Your task to perform on an android device: Clear the shopping cart on ebay.com. Search for "lenovo thinkpad" on ebay.com, select the first entry, and add it to the cart. Image 0: 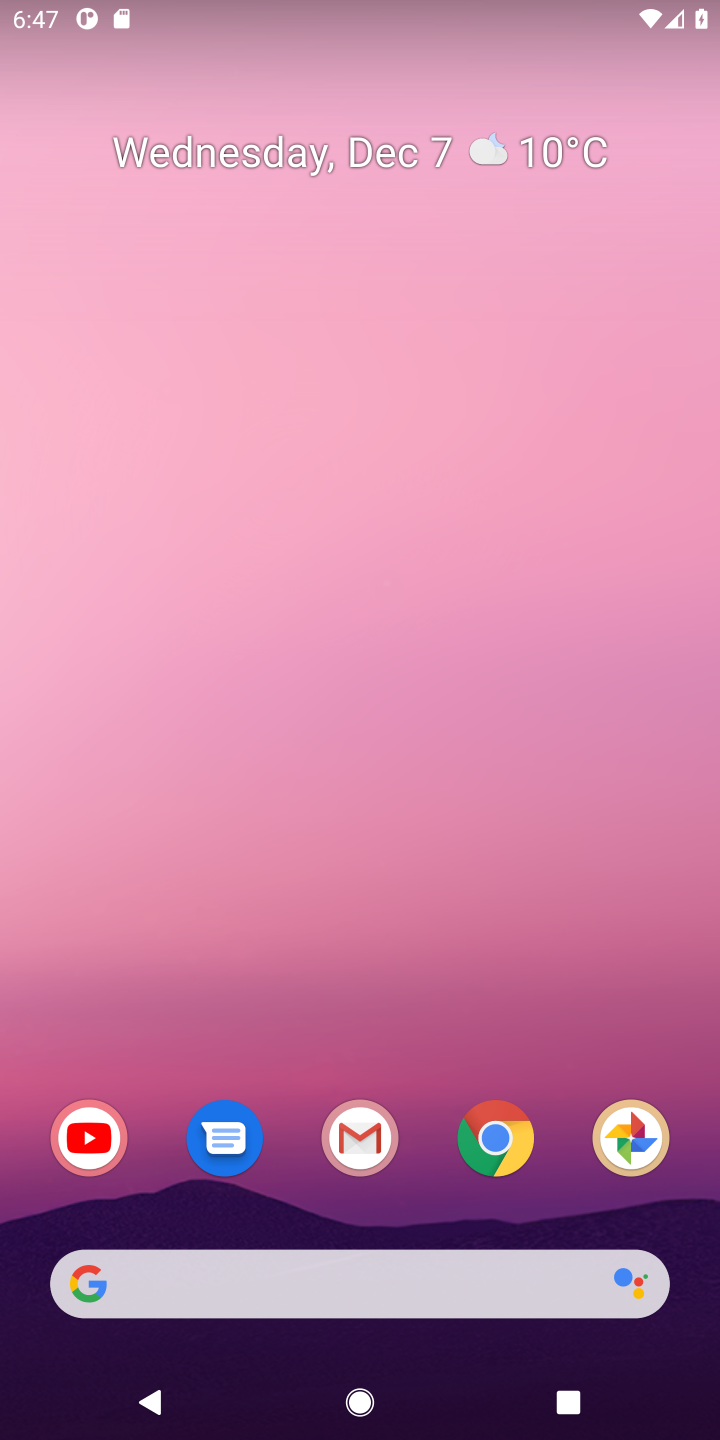
Step 0: press home button
Your task to perform on an android device: Clear the shopping cart on ebay.com. Search for "lenovo thinkpad" on ebay.com, select the first entry, and add it to the cart. Image 1: 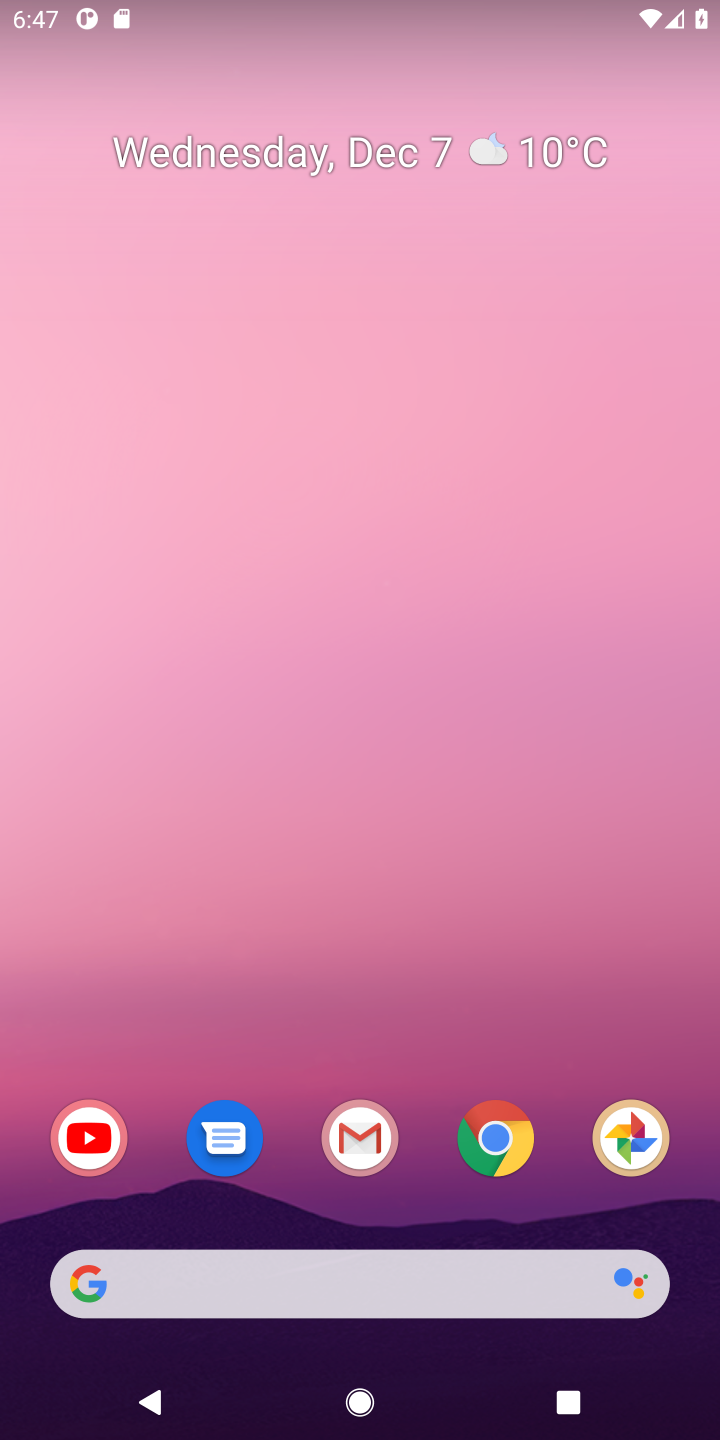
Step 1: click (149, 1283)
Your task to perform on an android device: Clear the shopping cart on ebay.com. Search for "lenovo thinkpad" on ebay.com, select the first entry, and add it to the cart. Image 2: 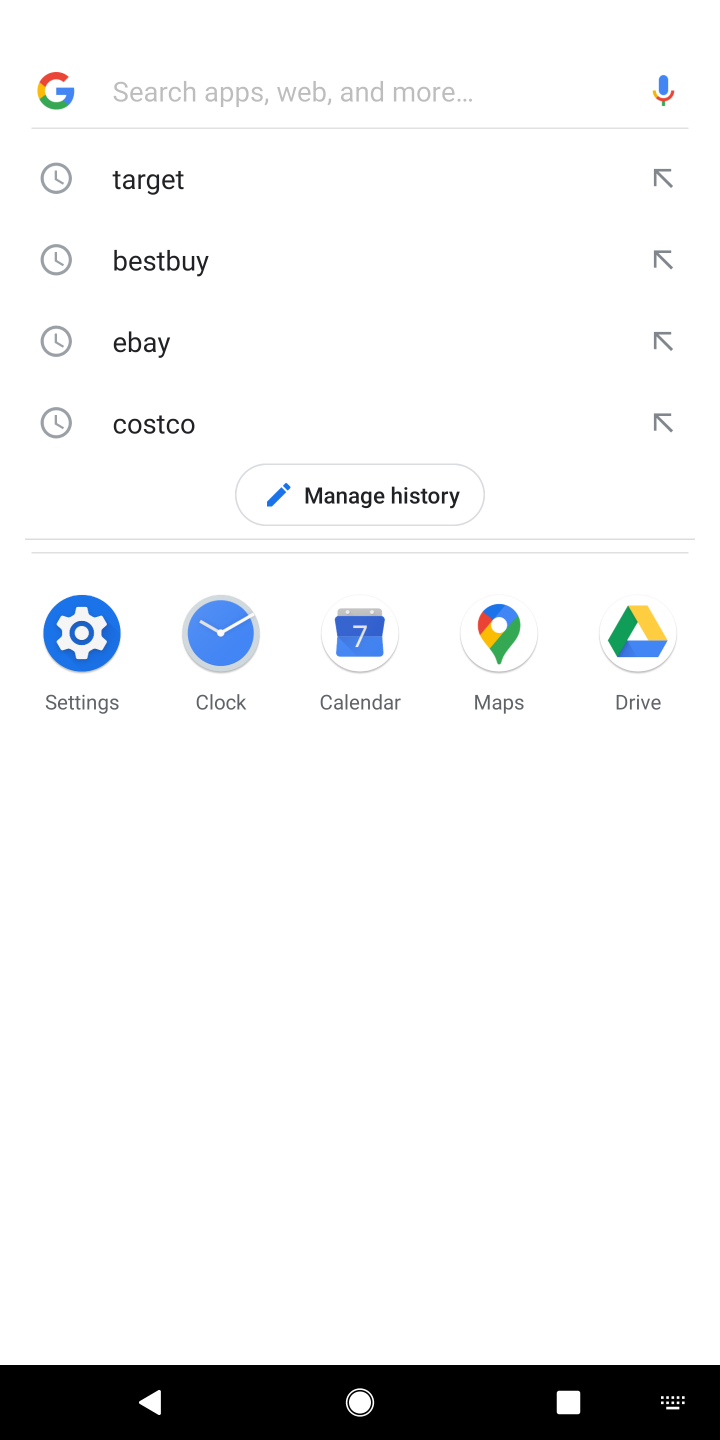
Step 2: press enter
Your task to perform on an android device: Clear the shopping cart on ebay.com. Search for "lenovo thinkpad" on ebay.com, select the first entry, and add it to the cart. Image 3: 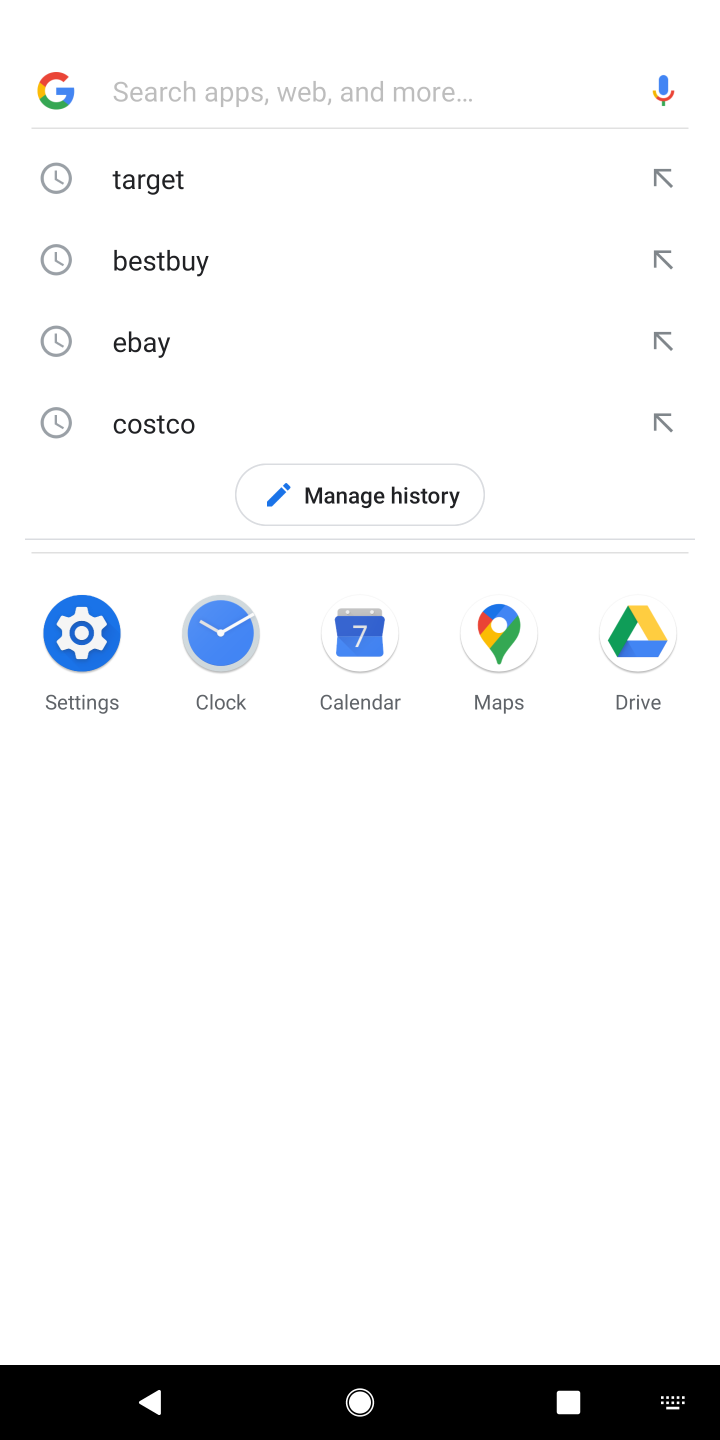
Step 3: type "ebay.com"
Your task to perform on an android device: Clear the shopping cart on ebay.com. Search for "lenovo thinkpad" on ebay.com, select the first entry, and add it to the cart. Image 4: 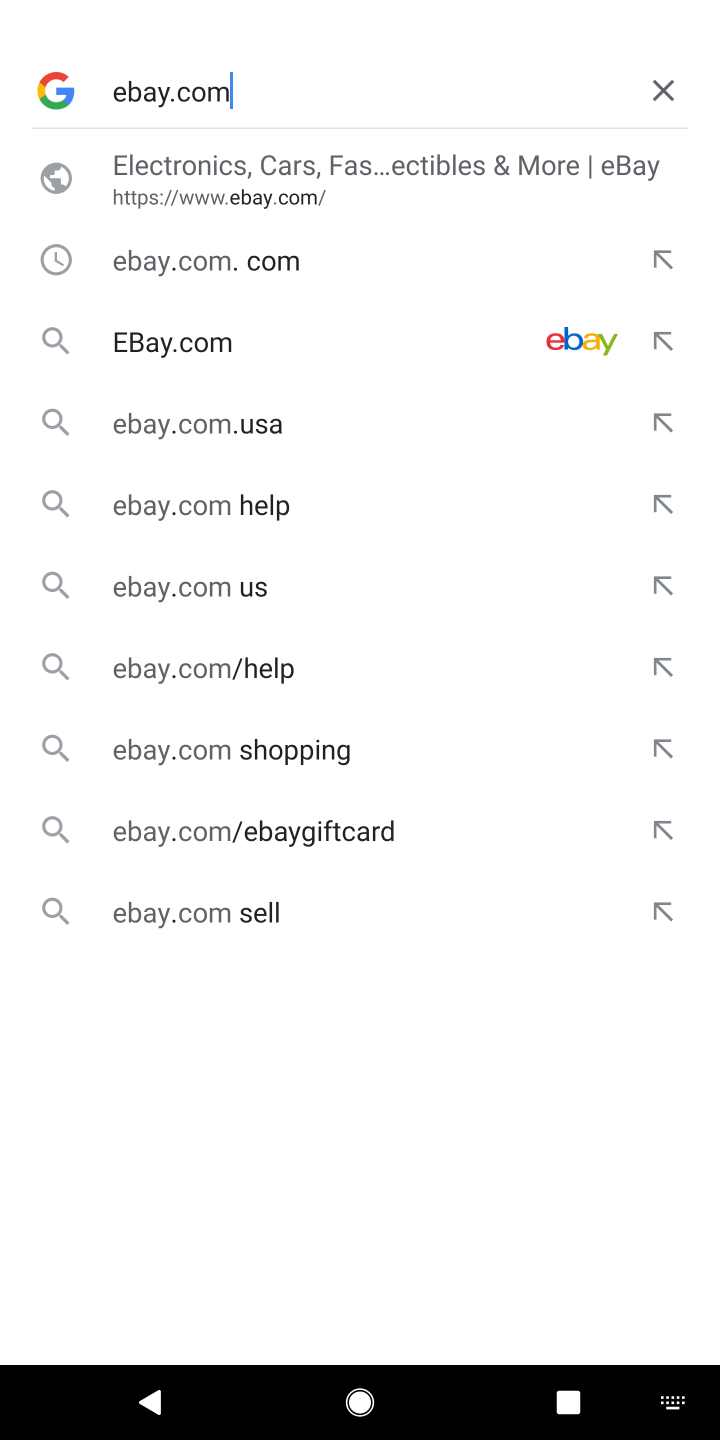
Step 4: press enter
Your task to perform on an android device: Clear the shopping cart on ebay.com. Search for "lenovo thinkpad" on ebay.com, select the first entry, and add it to the cart. Image 5: 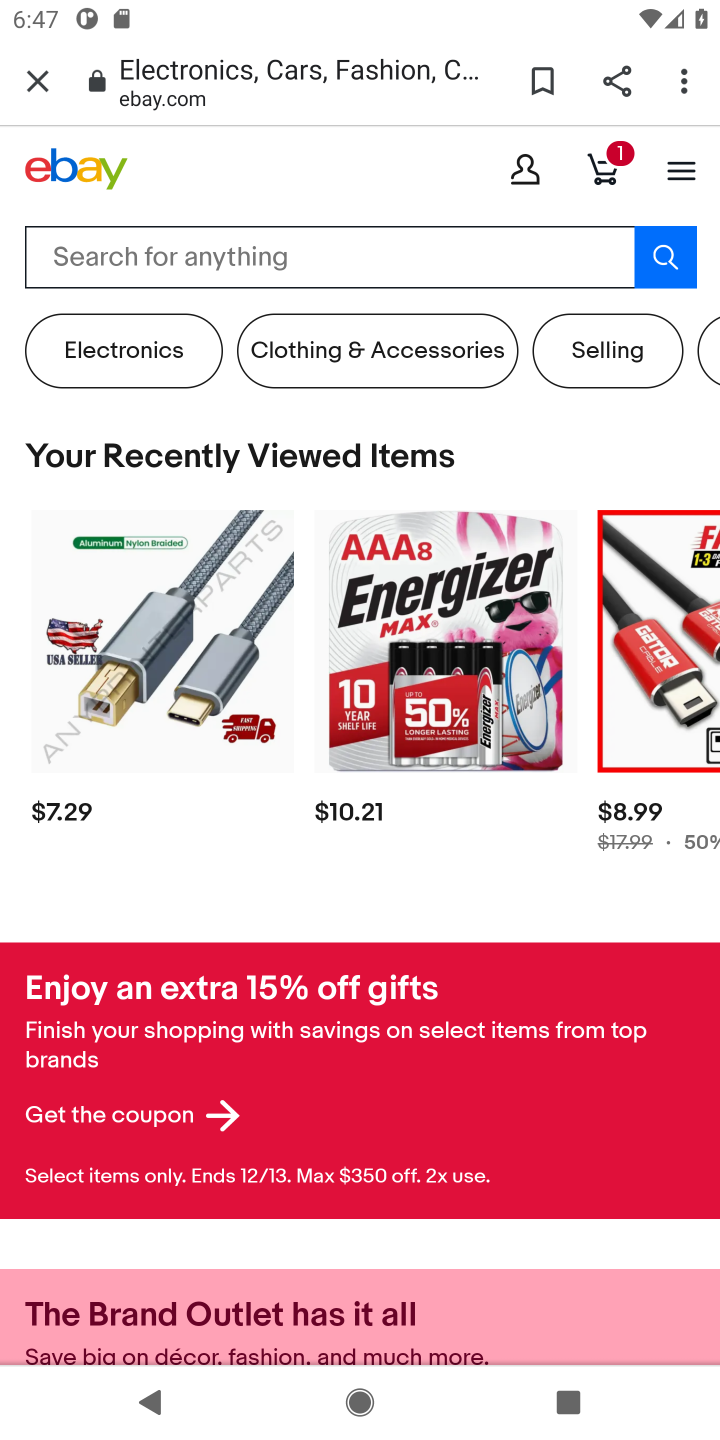
Step 5: click (599, 155)
Your task to perform on an android device: Clear the shopping cart on ebay.com. Search for "lenovo thinkpad" on ebay.com, select the first entry, and add it to the cart. Image 6: 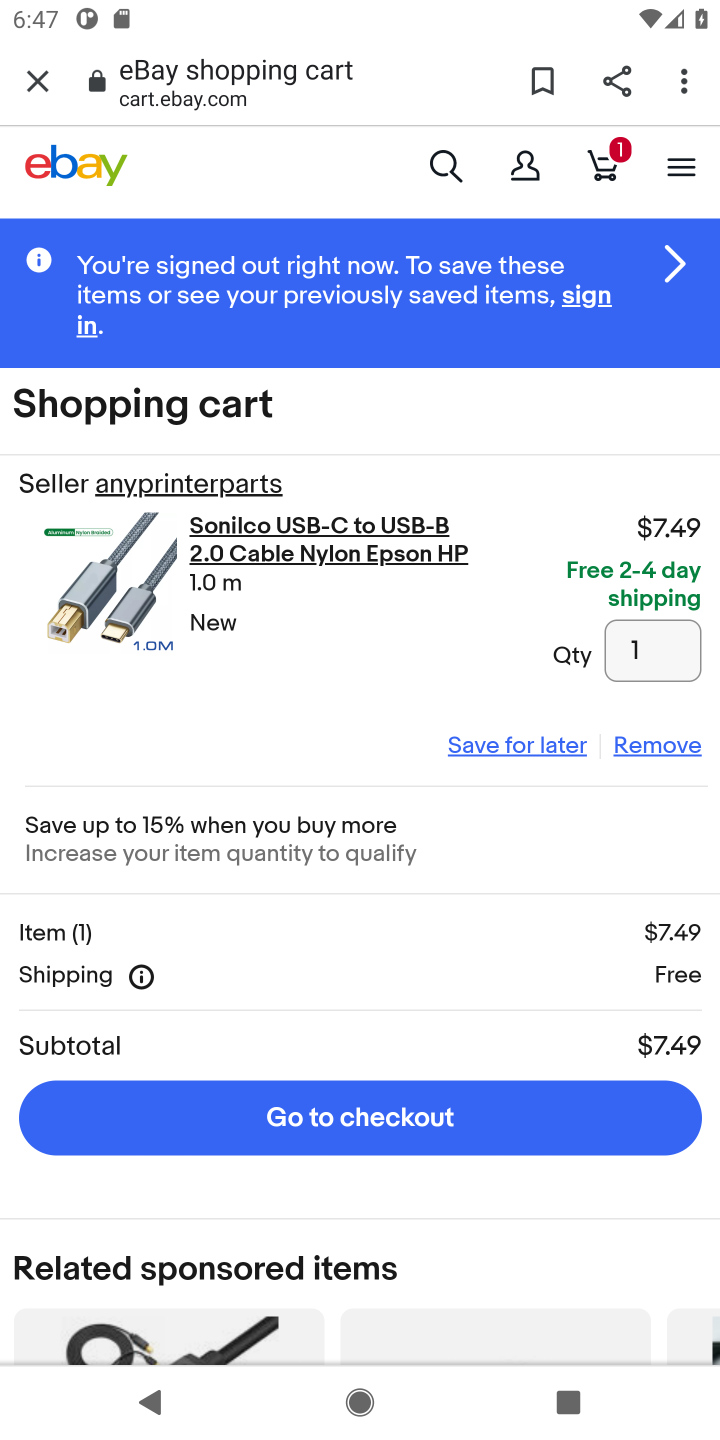
Step 6: click (656, 748)
Your task to perform on an android device: Clear the shopping cart on ebay.com. Search for "lenovo thinkpad" on ebay.com, select the first entry, and add it to the cart. Image 7: 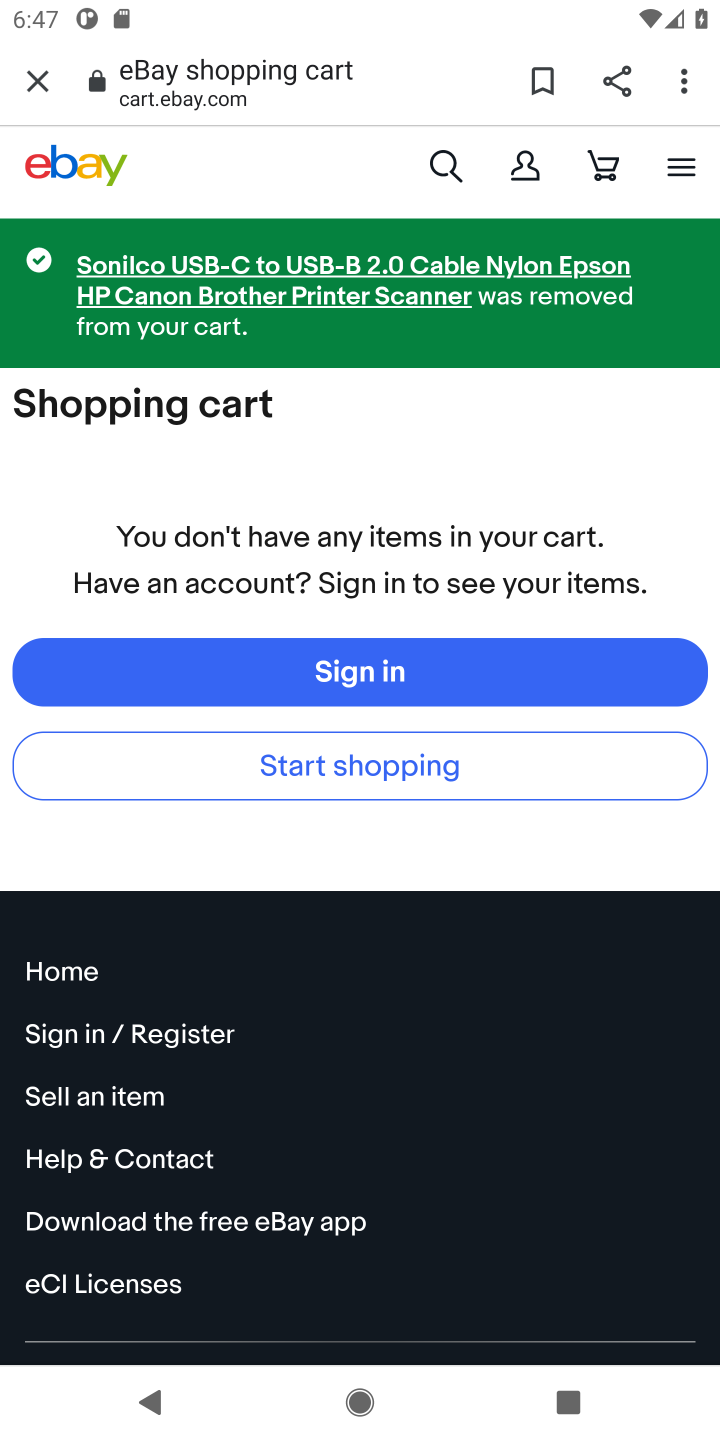
Step 7: click (430, 155)
Your task to perform on an android device: Clear the shopping cart on ebay.com. Search for "lenovo thinkpad" on ebay.com, select the first entry, and add it to the cart. Image 8: 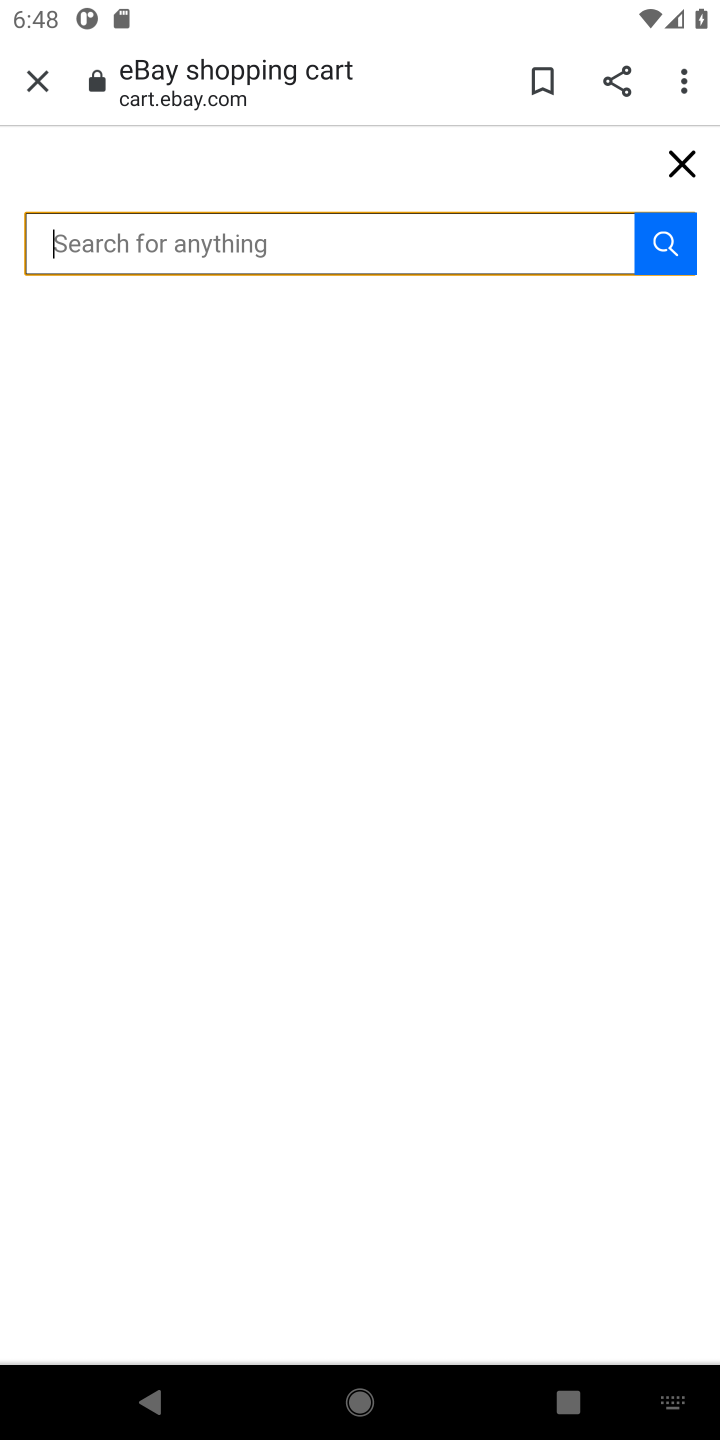
Step 8: type "lenovo thinkpad"
Your task to perform on an android device: Clear the shopping cart on ebay.com. Search for "lenovo thinkpad" on ebay.com, select the first entry, and add it to the cart. Image 9: 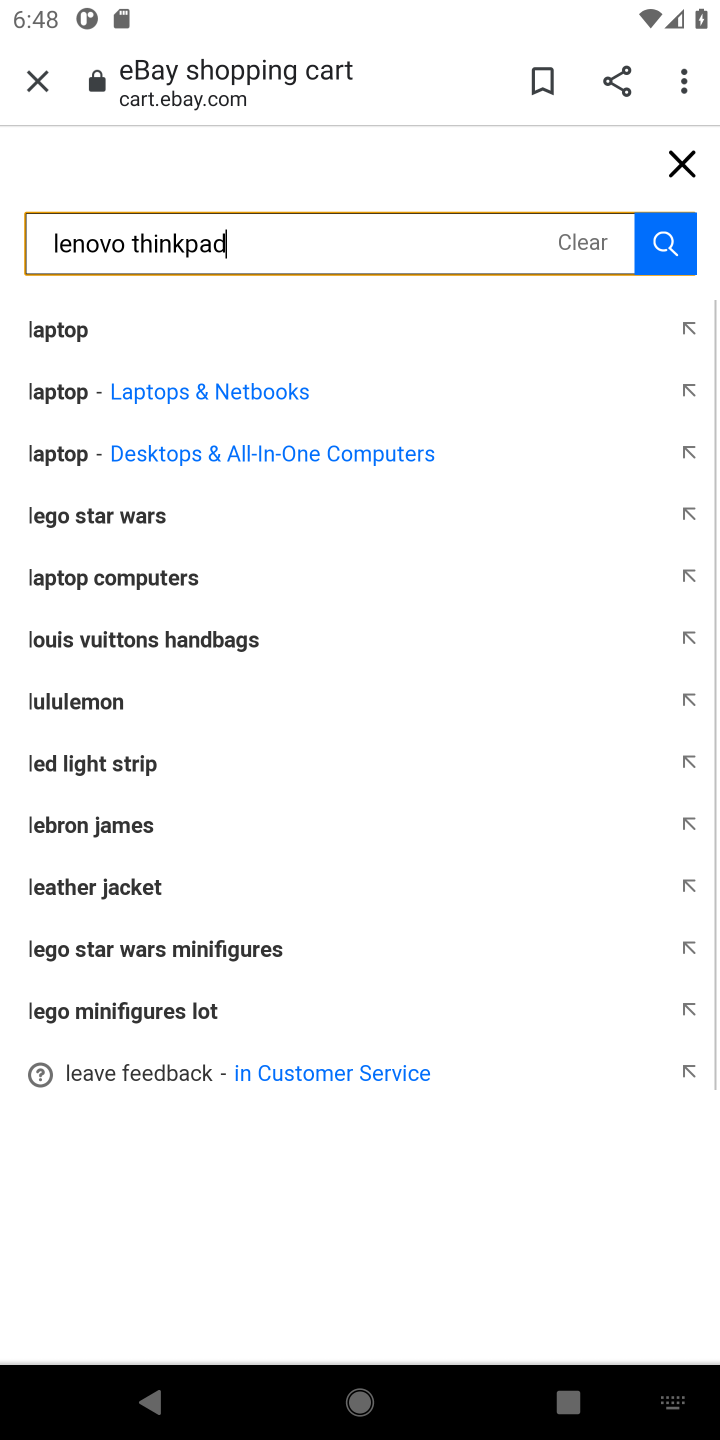
Step 9: press enter
Your task to perform on an android device: Clear the shopping cart on ebay.com. Search for "lenovo thinkpad" on ebay.com, select the first entry, and add it to the cart. Image 10: 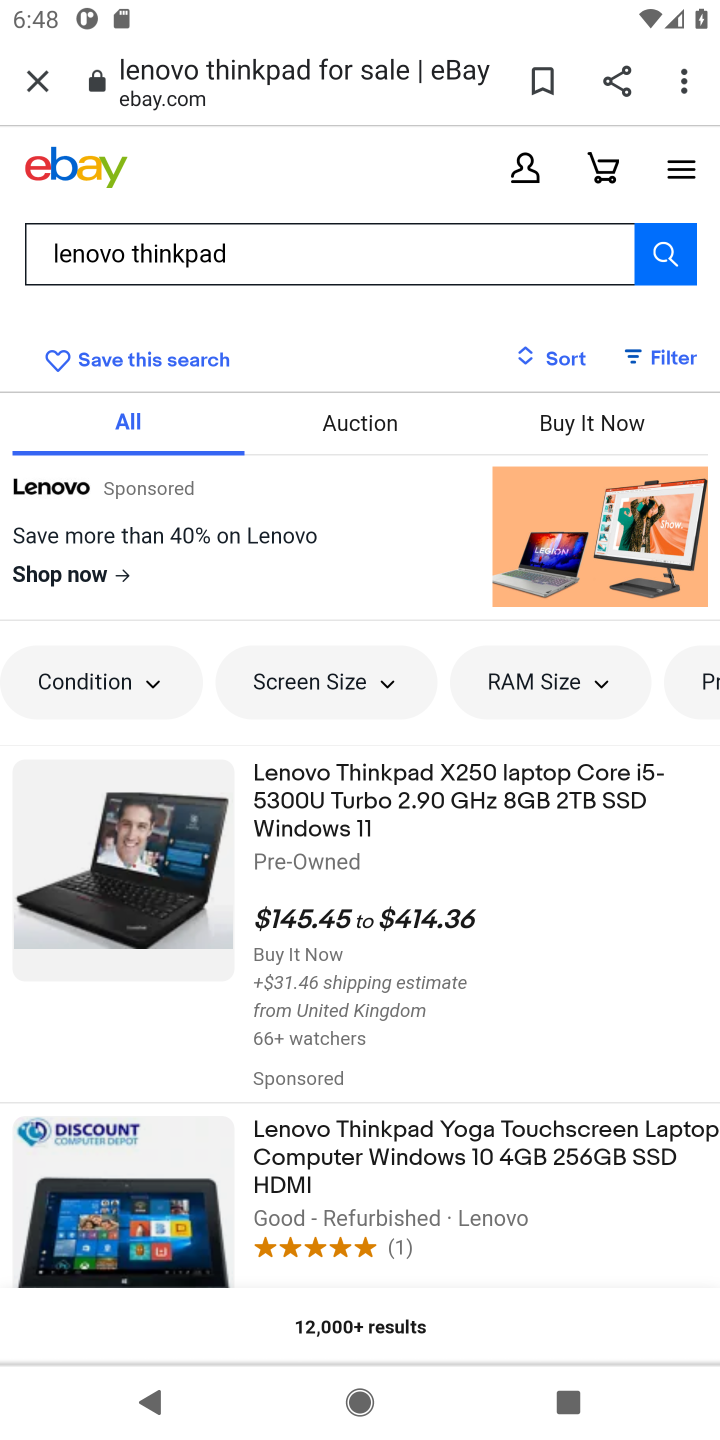
Step 10: click (366, 819)
Your task to perform on an android device: Clear the shopping cart on ebay.com. Search for "lenovo thinkpad" on ebay.com, select the first entry, and add it to the cart. Image 11: 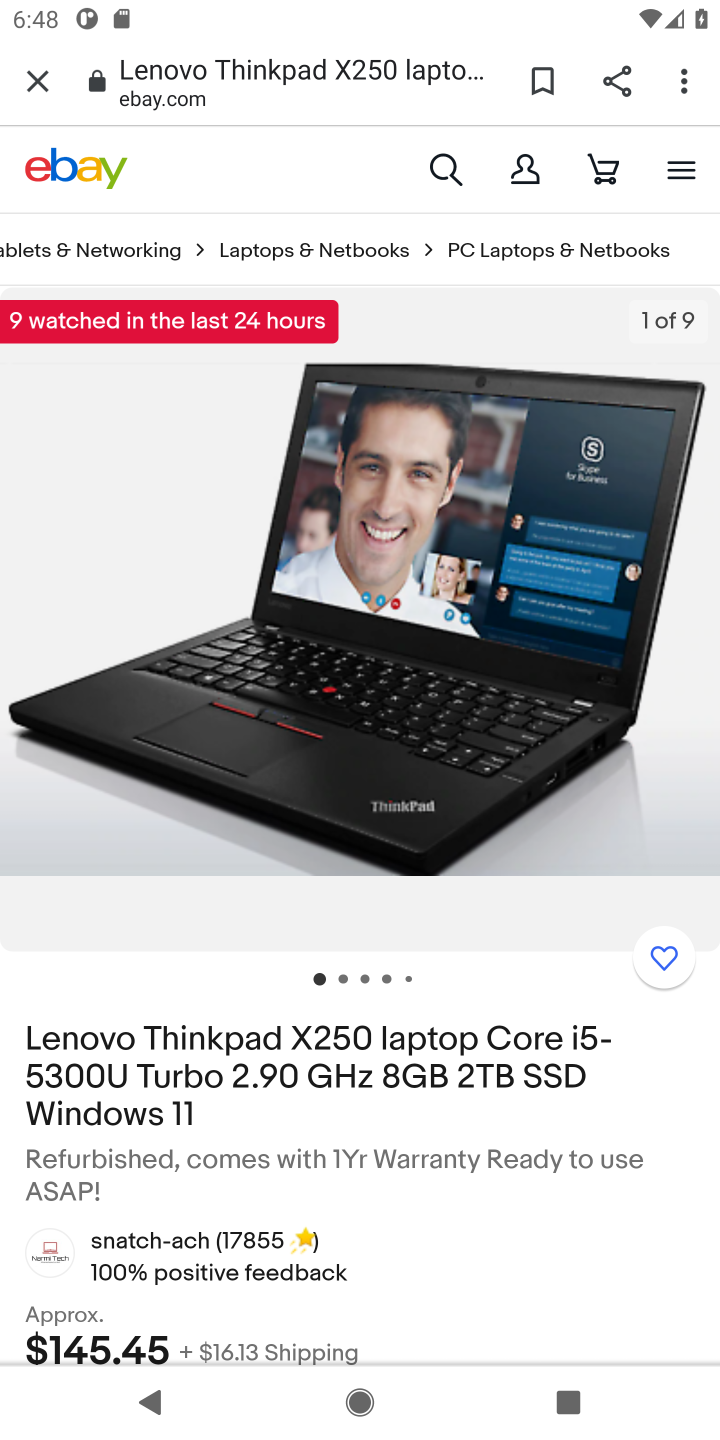
Step 11: drag from (467, 1215) to (516, 565)
Your task to perform on an android device: Clear the shopping cart on ebay.com. Search for "lenovo thinkpad" on ebay.com, select the first entry, and add it to the cart. Image 12: 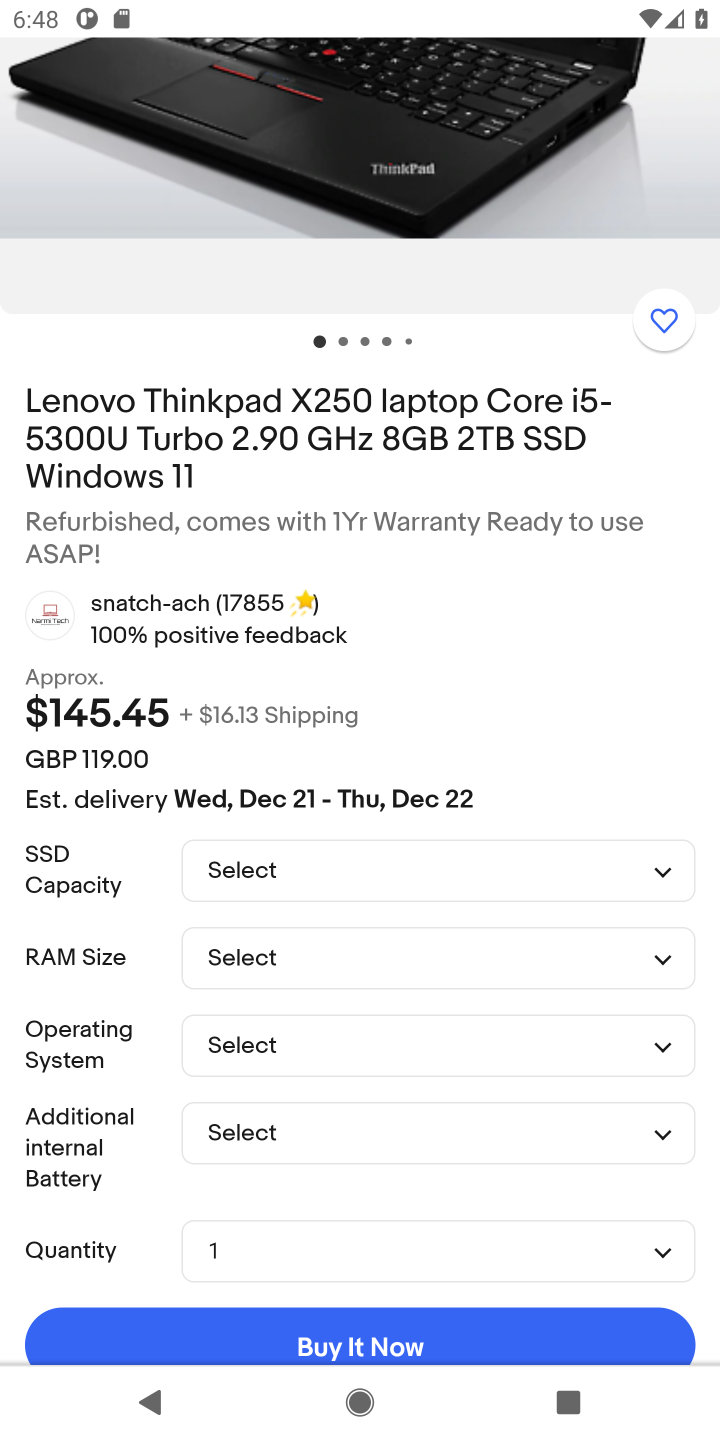
Step 12: drag from (94, 1199) to (142, 689)
Your task to perform on an android device: Clear the shopping cart on ebay.com. Search for "lenovo thinkpad" on ebay.com, select the first entry, and add it to the cart. Image 13: 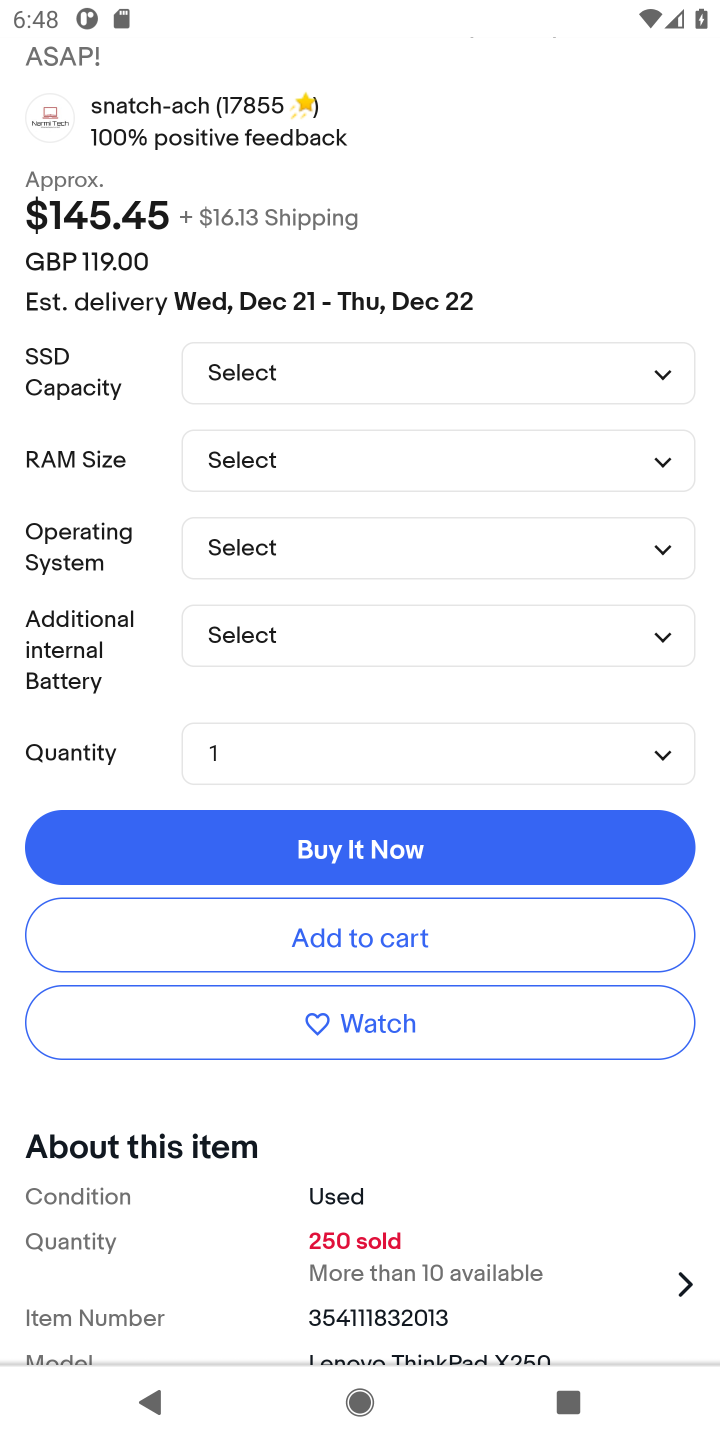
Step 13: click (342, 941)
Your task to perform on an android device: Clear the shopping cart on ebay.com. Search for "lenovo thinkpad" on ebay.com, select the first entry, and add it to the cart. Image 14: 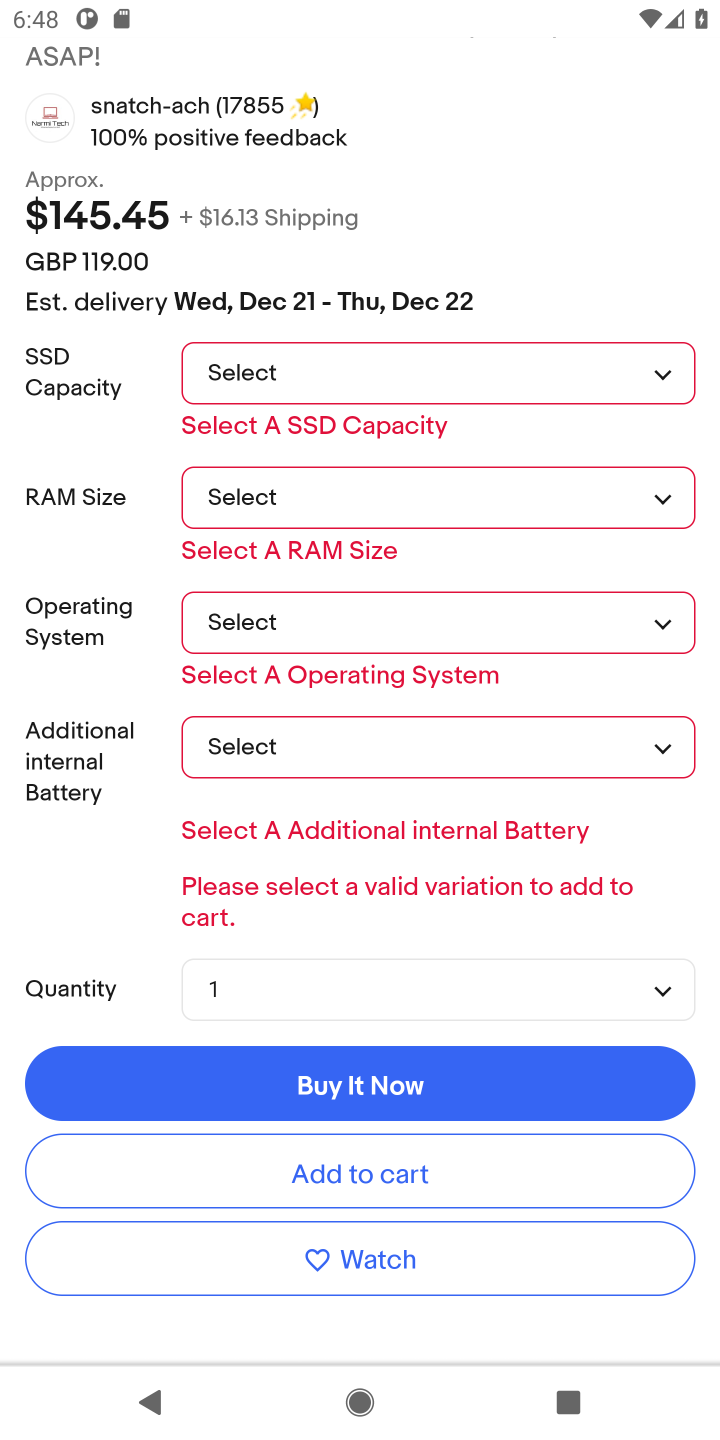
Step 14: click (661, 369)
Your task to perform on an android device: Clear the shopping cart on ebay.com. Search for "lenovo thinkpad" on ebay.com, select the first entry, and add it to the cart. Image 15: 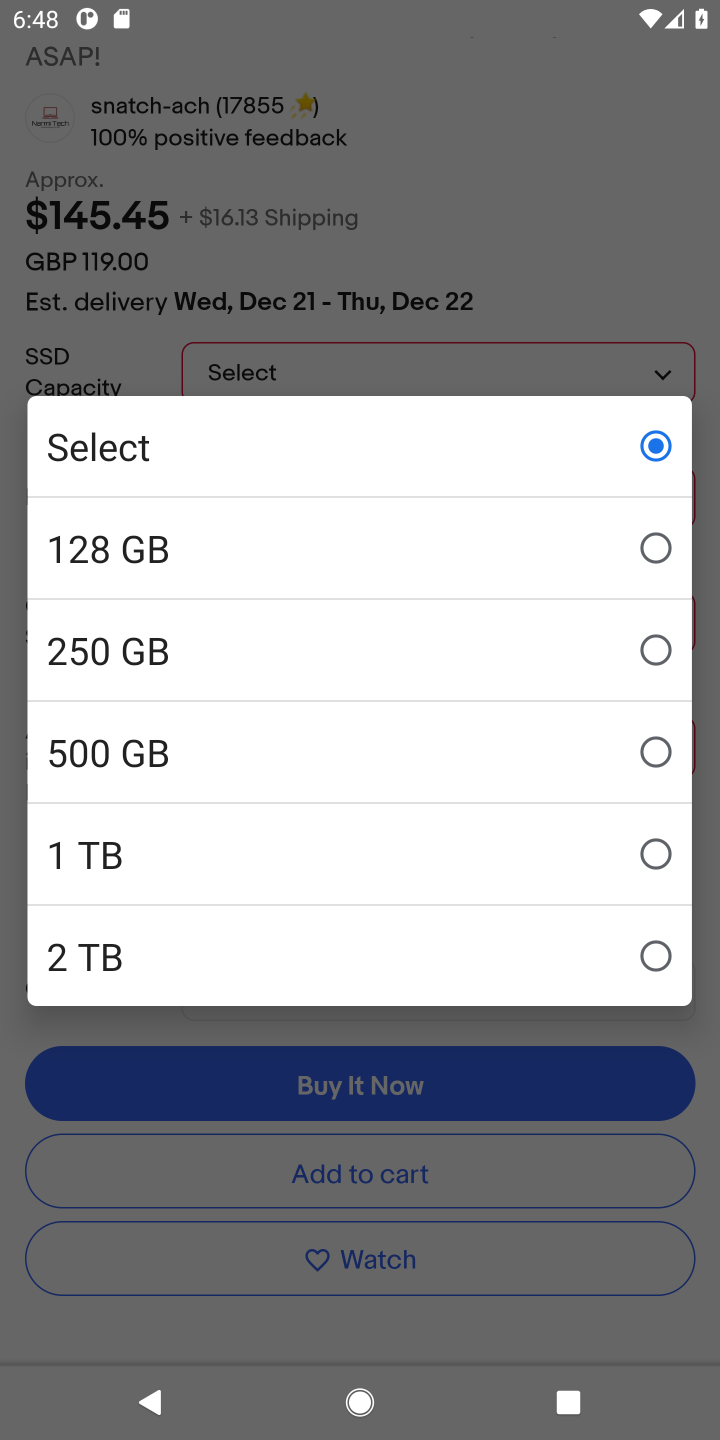
Step 15: click (657, 547)
Your task to perform on an android device: Clear the shopping cart on ebay.com. Search for "lenovo thinkpad" on ebay.com, select the first entry, and add it to the cart. Image 16: 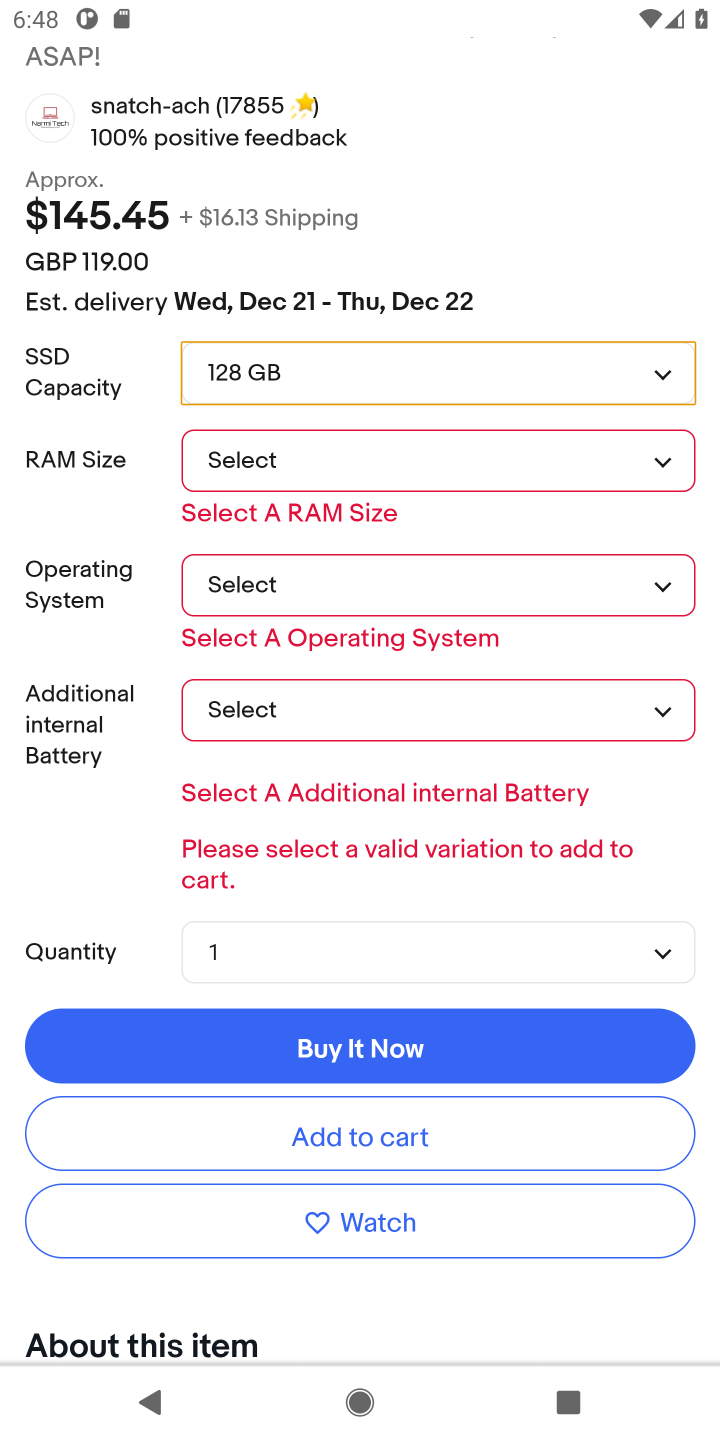
Step 16: click (661, 459)
Your task to perform on an android device: Clear the shopping cart on ebay.com. Search for "lenovo thinkpad" on ebay.com, select the first entry, and add it to the cart. Image 17: 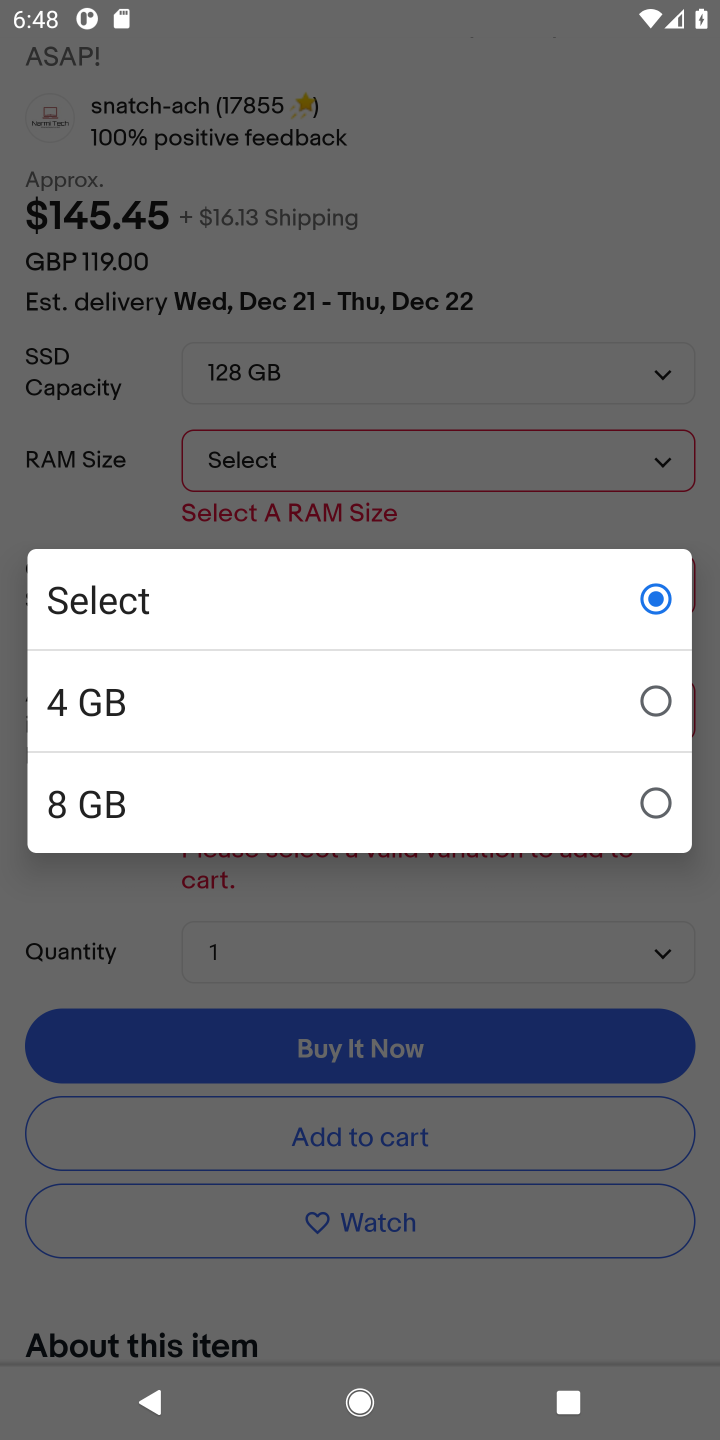
Step 17: click (649, 805)
Your task to perform on an android device: Clear the shopping cart on ebay.com. Search for "lenovo thinkpad" on ebay.com, select the first entry, and add it to the cart. Image 18: 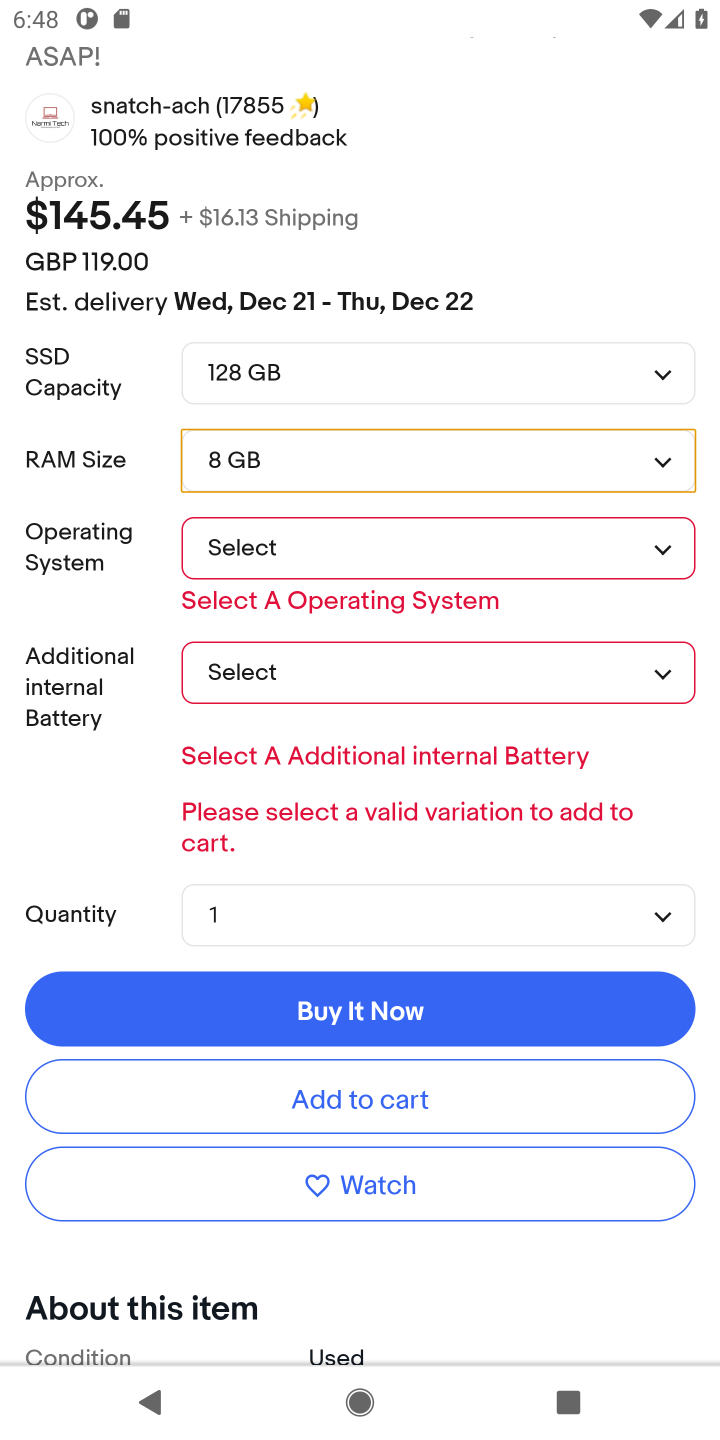
Step 18: click (661, 546)
Your task to perform on an android device: Clear the shopping cart on ebay.com. Search for "lenovo thinkpad" on ebay.com, select the first entry, and add it to the cart. Image 19: 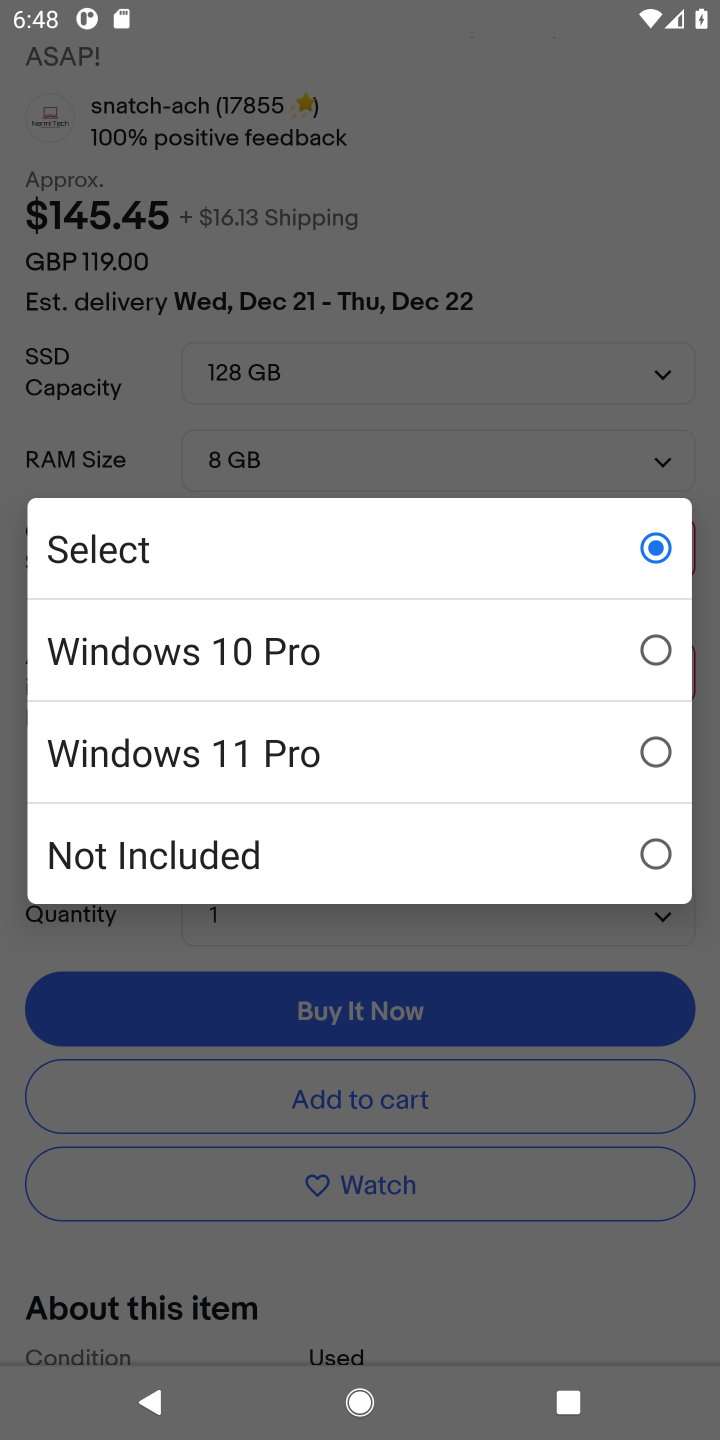
Step 19: click (659, 763)
Your task to perform on an android device: Clear the shopping cart on ebay.com. Search for "lenovo thinkpad" on ebay.com, select the first entry, and add it to the cart. Image 20: 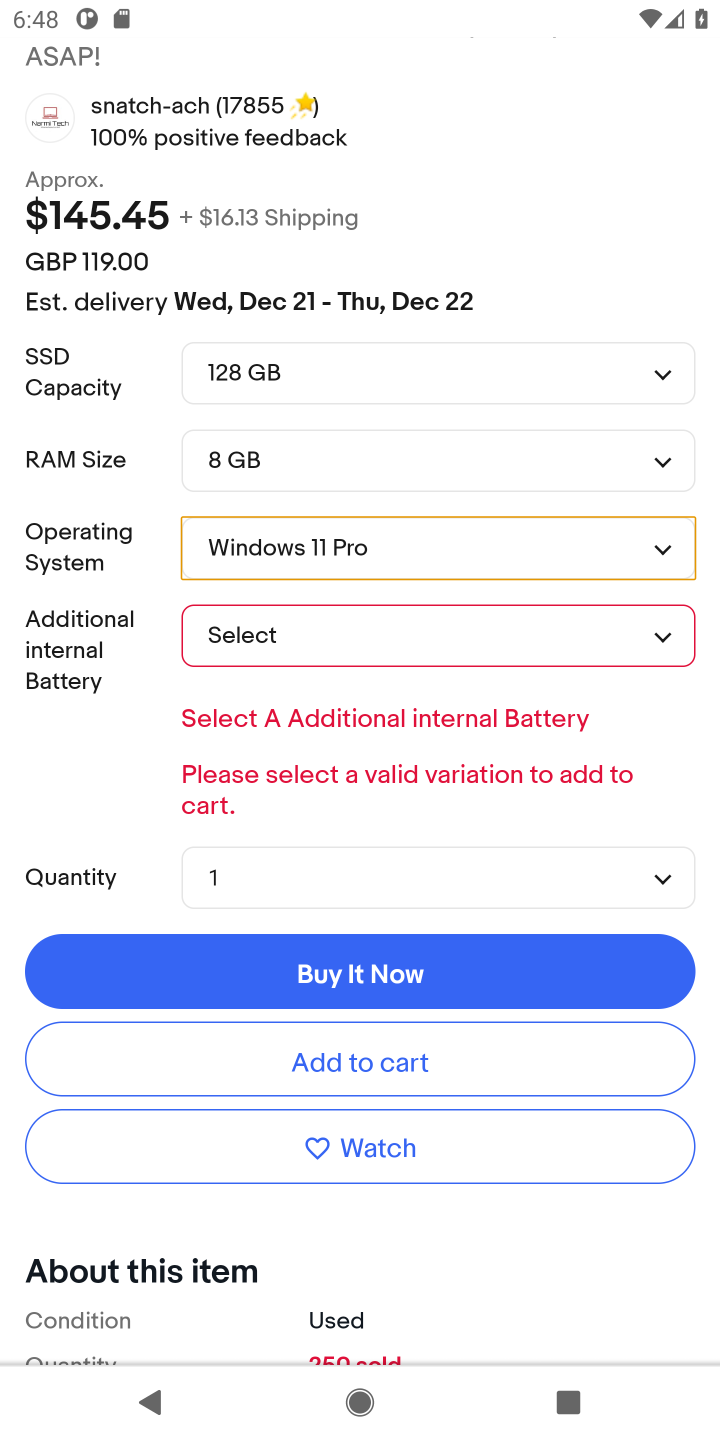
Step 20: click (663, 640)
Your task to perform on an android device: Clear the shopping cart on ebay.com. Search for "lenovo thinkpad" on ebay.com, select the first entry, and add it to the cart. Image 21: 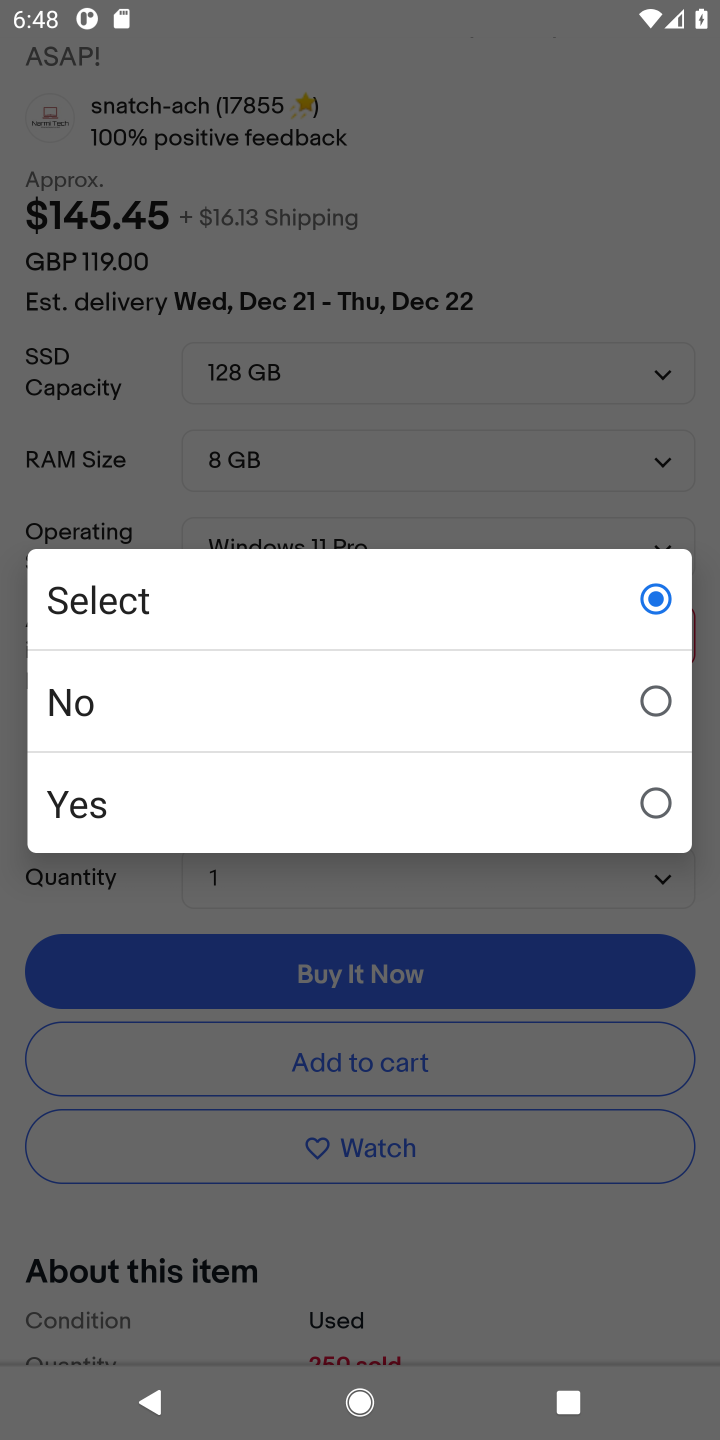
Step 21: click (655, 799)
Your task to perform on an android device: Clear the shopping cart on ebay.com. Search for "lenovo thinkpad" on ebay.com, select the first entry, and add it to the cart. Image 22: 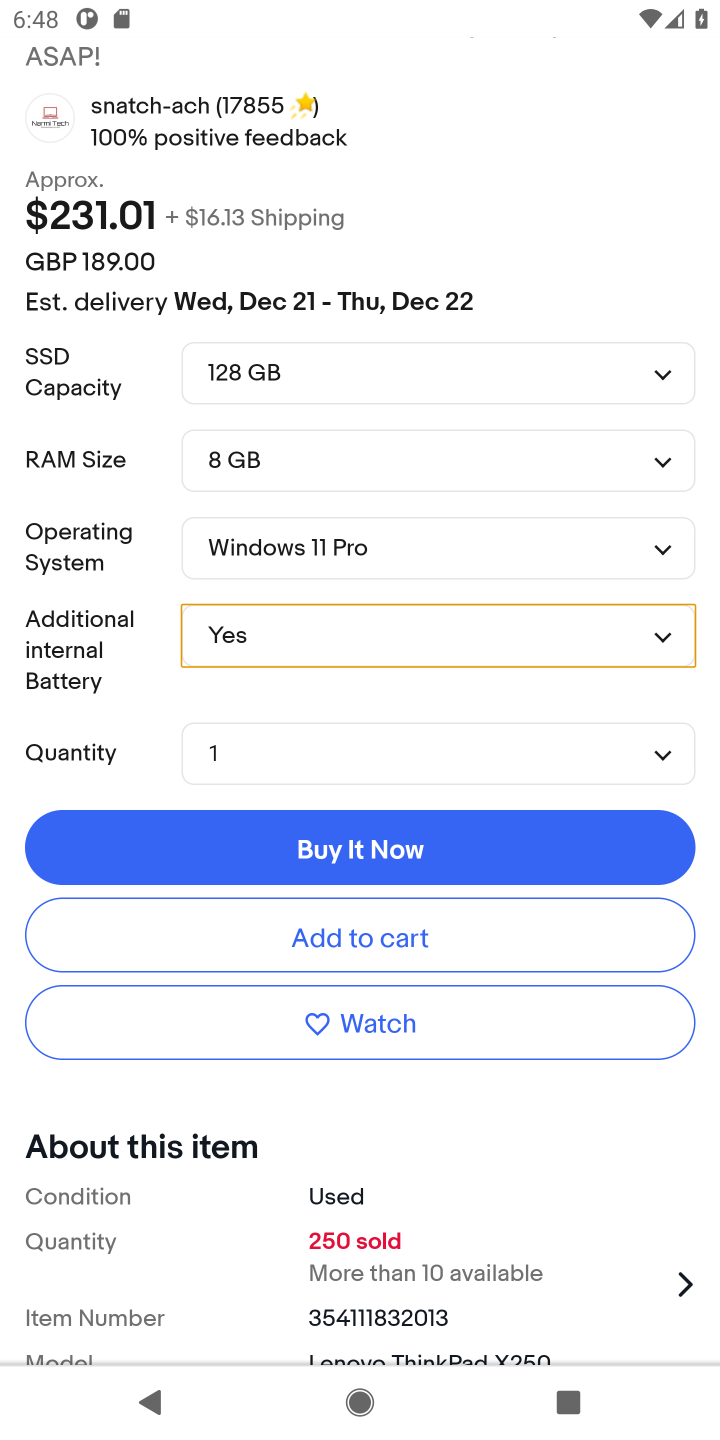
Step 22: click (376, 932)
Your task to perform on an android device: Clear the shopping cart on ebay.com. Search for "lenovo thinkpad" on ebay.com, select the first entry, and add it to the cart. Image 23: 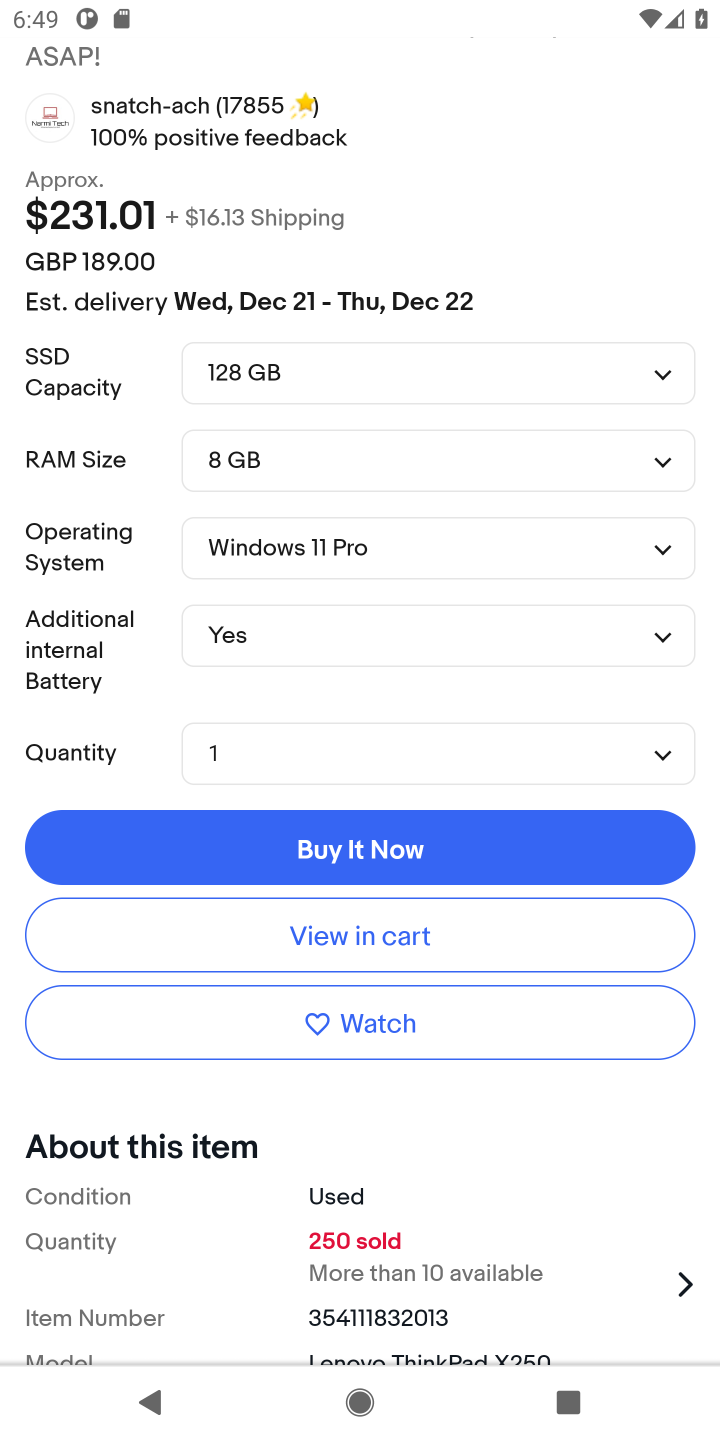
Step 23: task complete